Your task to perform on an android device: turn off airplane mode Image 0: 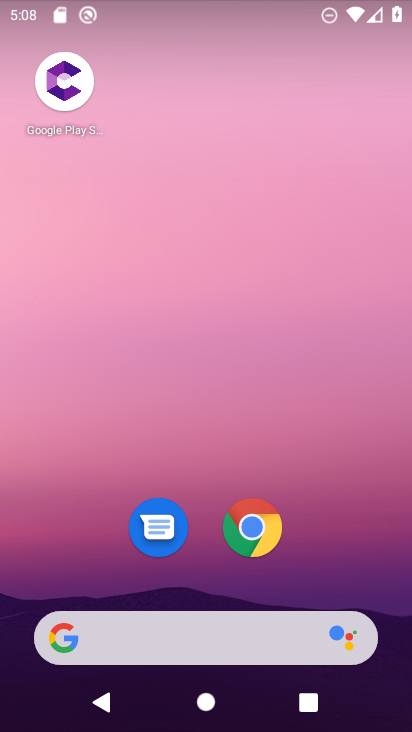
Step 0: drag from (326, 4) to (289, 725)
Your task to perform on an android device: turn off airplane mode Image 1: 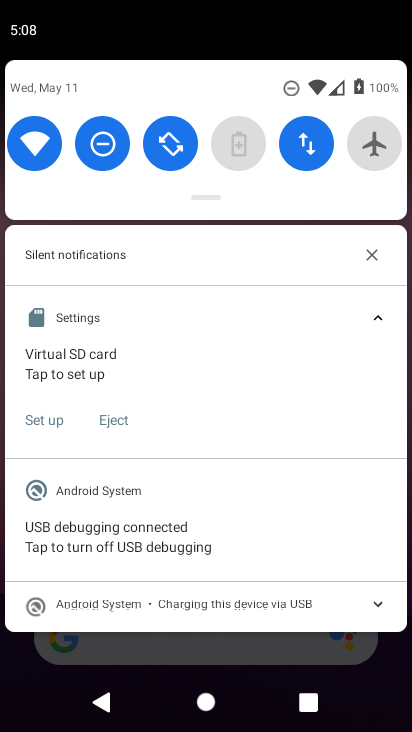
Step 1: task complete